Your task to perform on an android device: Search for Italian restaurants on Maps Image 0: 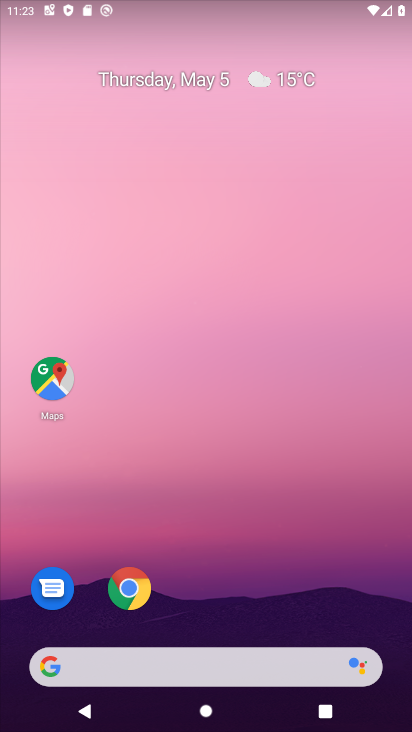
Step 0: drag from (289, 486) to (288, 0)
Your task to perform on an android device: Search for Italian restaurants on Maps Image 1: 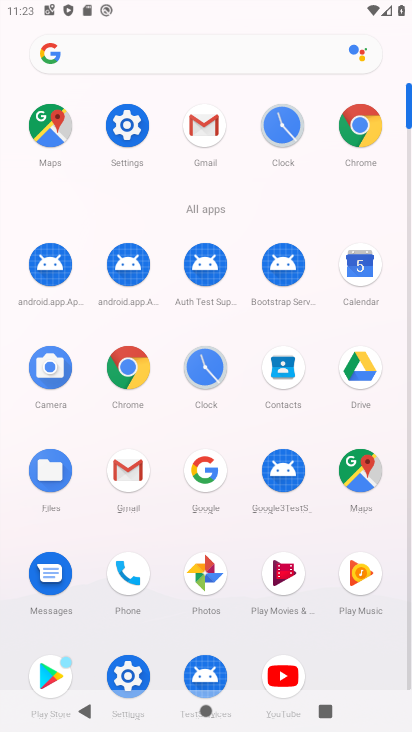
Step 1: click (52, 120)
Your task to perform on an android device: Search for Italian restaurants on Maps Image 2: 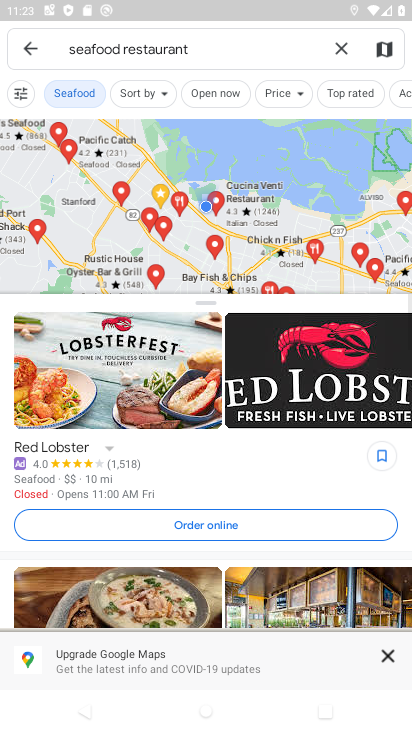
Step 2: click (339, 42)
Your task to perform on an android device: Search for Italian restaurants on Maps Image 3: 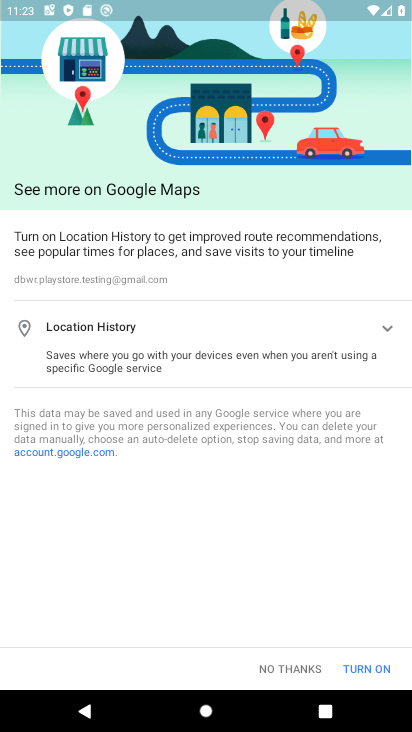
Step 3: click (301, 669)
Your task to perform on an android device: Search for Italian restaurants on Maps Image 4: 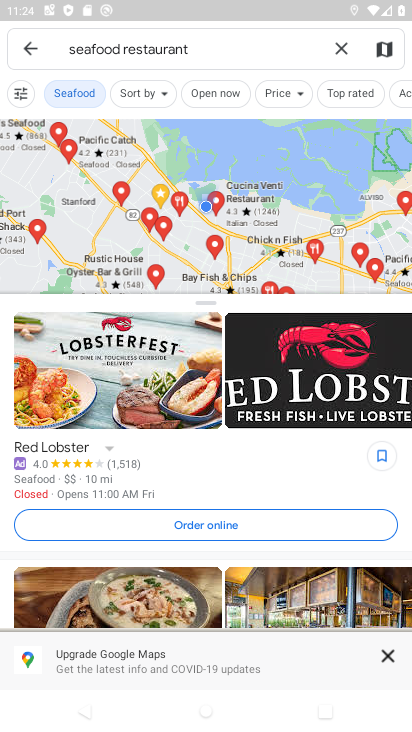
Step 4: click (270, 49)
Your task to perform on an android device: Search for Italian restaurants on Maps Image 5: 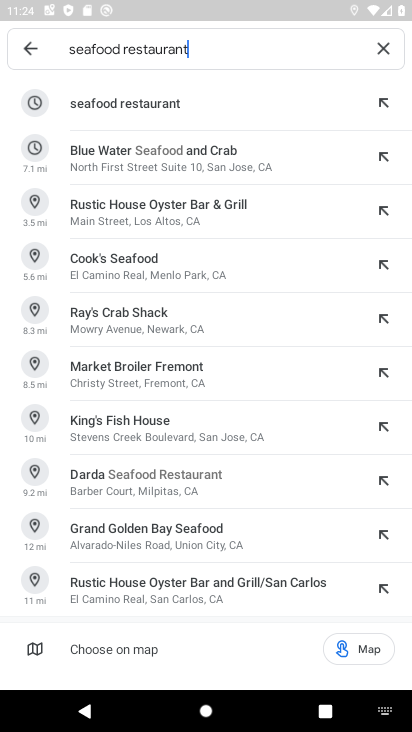
Step 5: click (383, 38)
Your task to perform on an android device: Search for Italian restaurants on Maps Image 6: 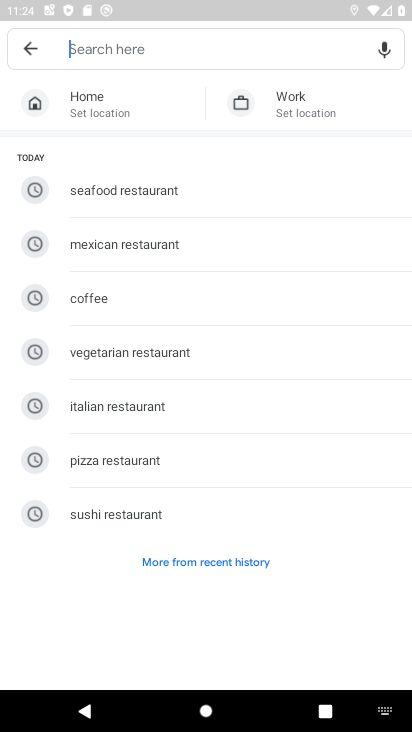
Step 6: click (127, 400)
Your task to perform on an android device: Search for Italian restaurants on Maps Image 7: 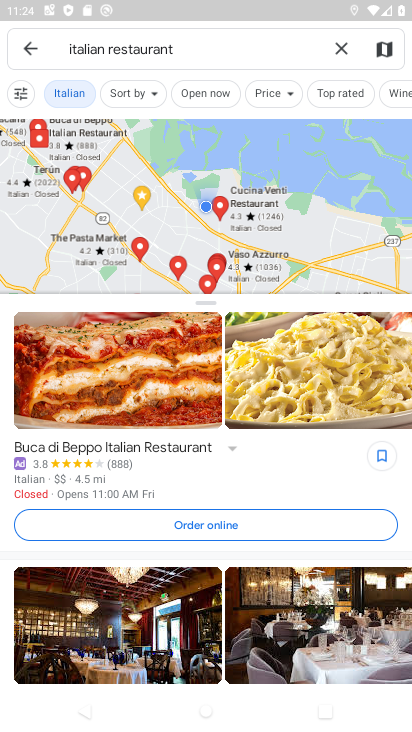
Step 7: task complete